Your task to perform on an android device: Search for Italian restaurants on Maps Image 0: 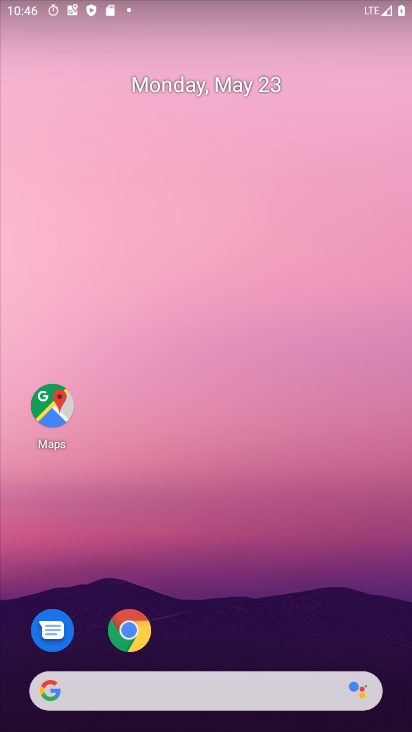
Step 0: click (54, 403)
Your task to perform on an android device: Search for Italian restaurants on Maps Image 1: 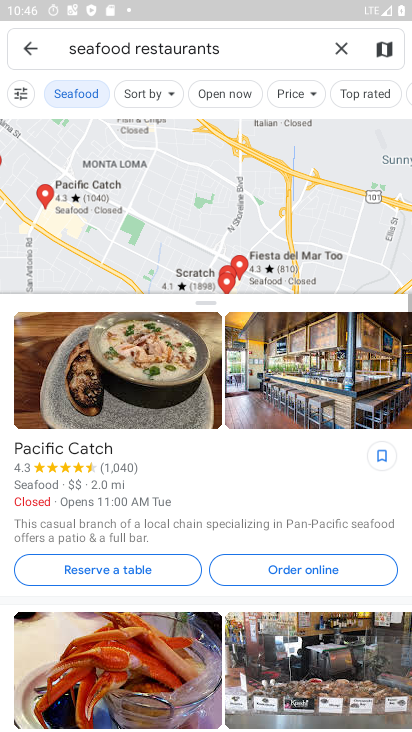
Step 1: click (340, 52)
Your task to perform on an android device: Search for Italian restaurants on Maps Image 2: 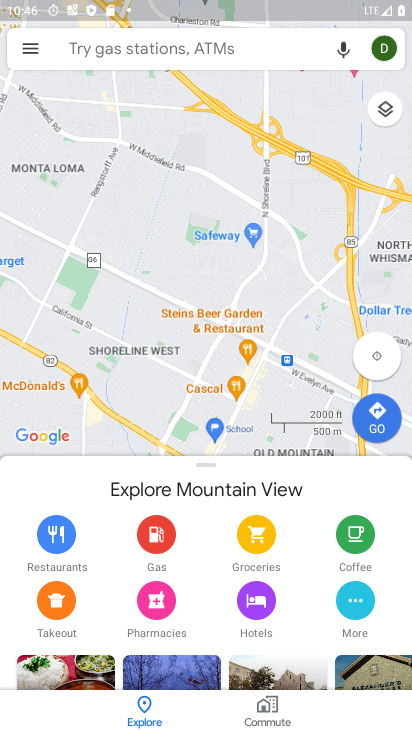
Step 2: click (81, 48)
Your task to perform on an android device: Search for Italian restaurants on Maps Image 3: 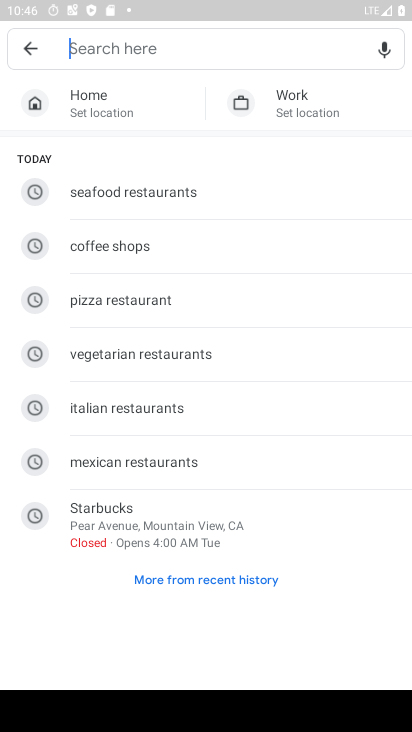
Step 3: type "italian restaurant"
Your task to perform on an android device: Search for Italian restaurants on Maps Image 4: 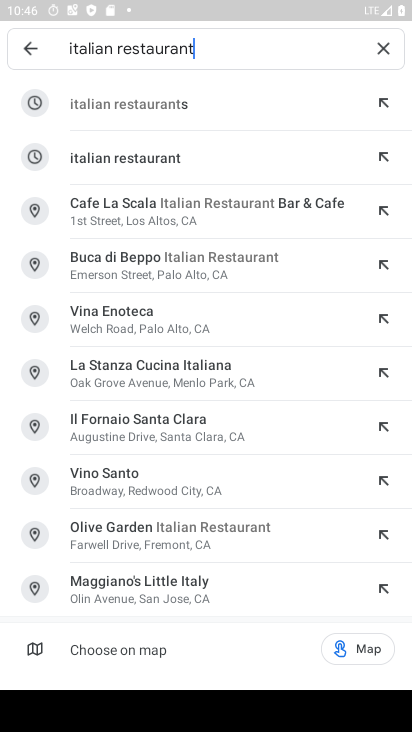
Step 4: click (94, 109)
Your task to perform on an android device: Search for Italian restaurants on Maps Image 5: 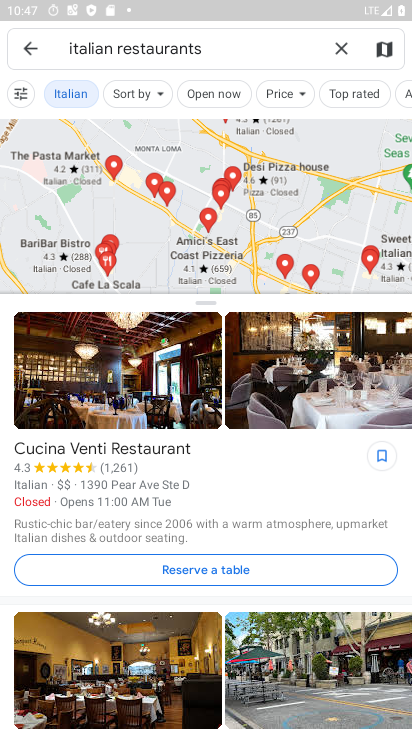
Step 5: task complete